Your task to perform on an android device: Go to sound settings Image 0: 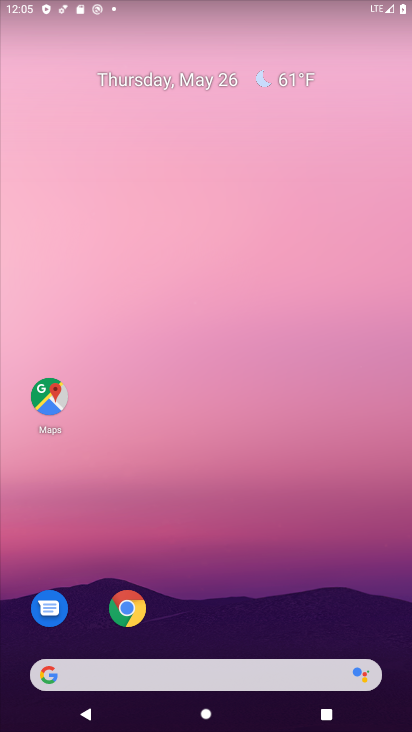
Step 0: drag from (365, 610) to (322, 105)
Your task to perform on an android device: Go to sound settings Image 1: 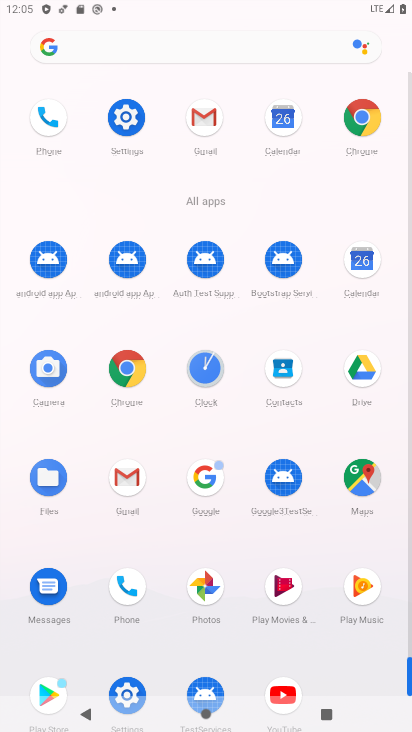
Step 1: click (410, 645)
Your task to perform on an android device: Go to sound settings Image 2: 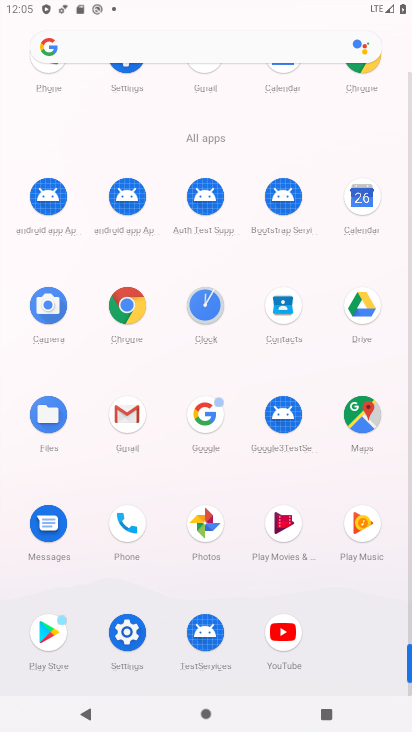
Step 2: click (128, 630)
Your task to perform on an android device: Go to sound settings Image 3: 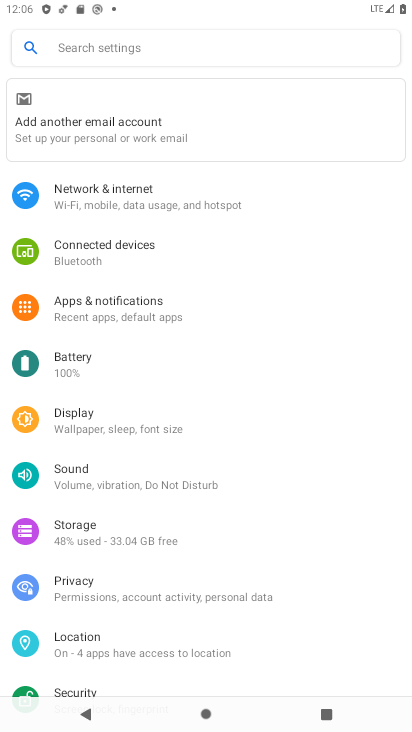
Step 3: click (88, 478)
Your task to perform on an android device: Go to sound settings Image 4: 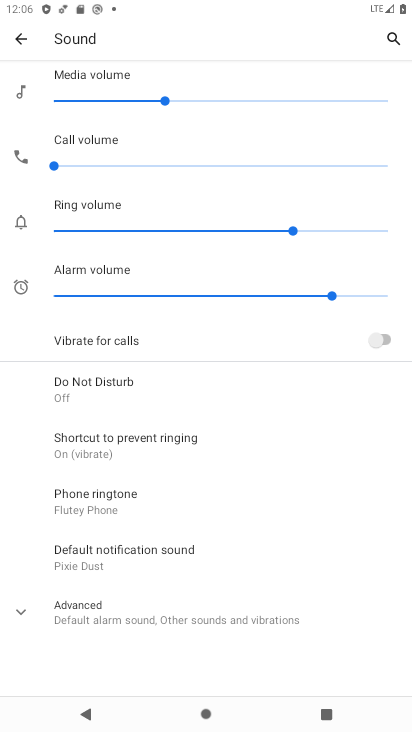
Step 4: click (13, 611)
Your task to perform on an android device: Go to sound settings Image 5: 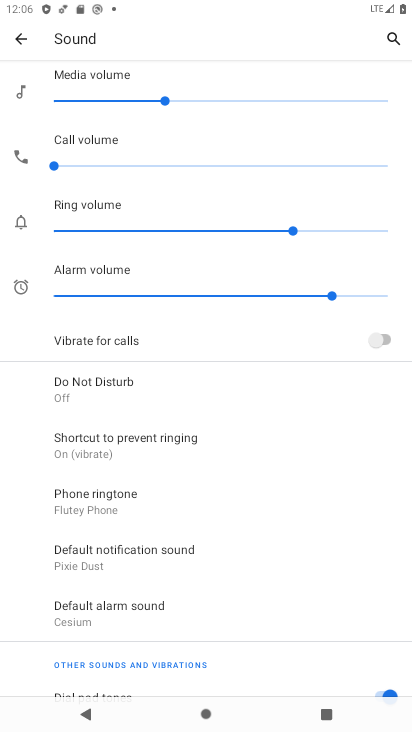
Step 5: task complete